Your task to perform on an android device: Show me popular games on the Play Store Image 0: 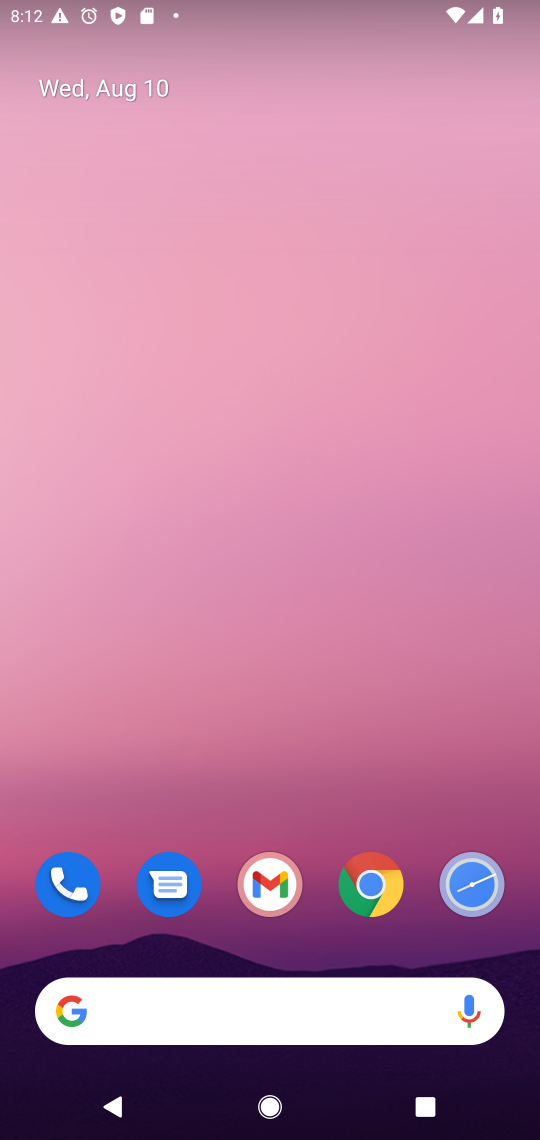
Step 0: drag from (23, 1091) to (257, 32)
Your task to perform on an android device: Show me popular games on the Play Store Image 1: 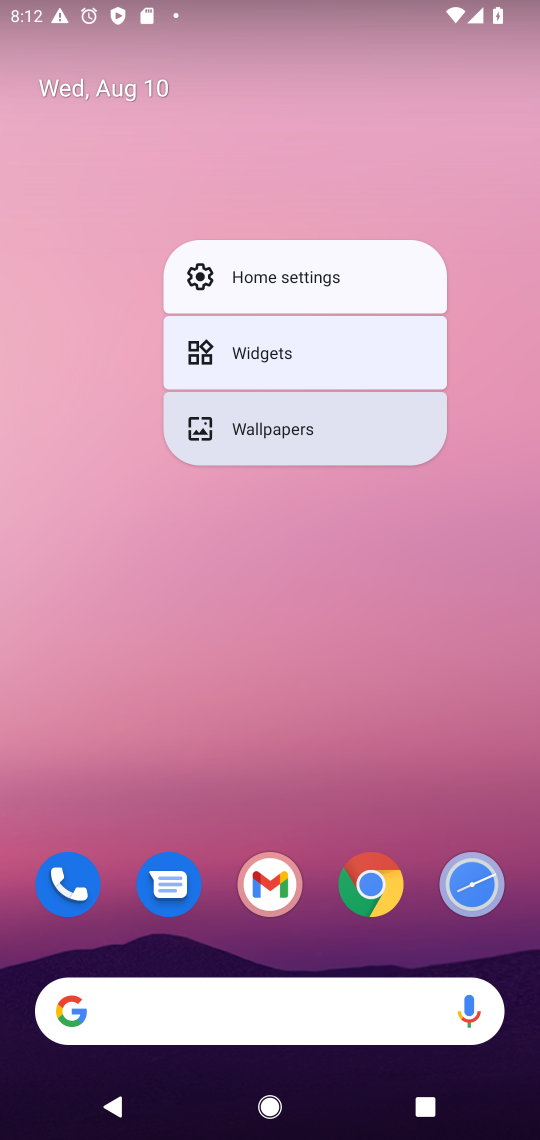
Step 1: drag from (39, 1085) to (176, 246)
Your task to perform on an android device: Show me popular games on the Play Store Image 2: 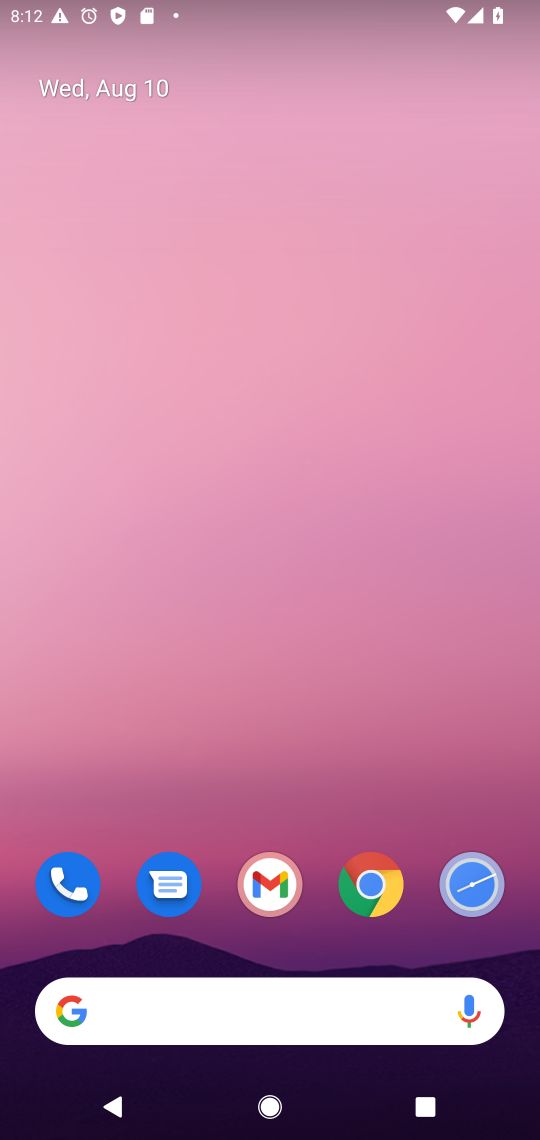
Step 2: click (299, 298)
Your task to perform on an android device: Show me popular games on the Play Store Image 3: 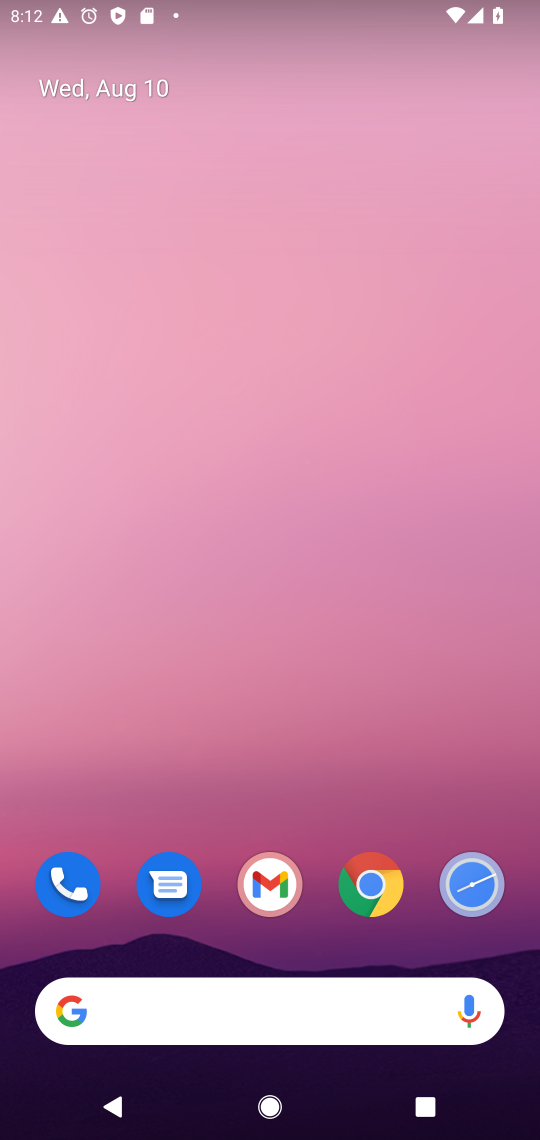
Step 3: task complete